Your task to perform on an android device: Go to eBay Image 0: 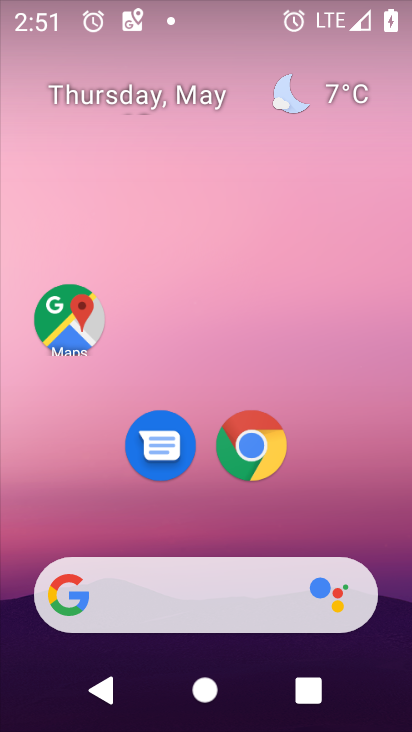
Step 0: click (320, 1)
Your task to perform on an android device: Go to eBay Image 1: 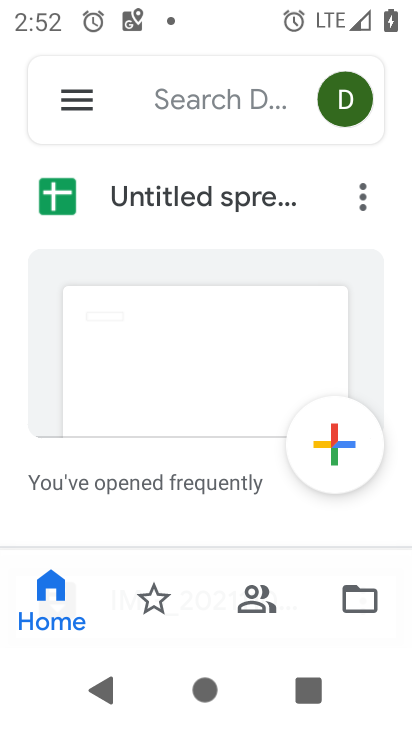
Step 1: press home button
Your task to perform on an android device: Go to eBay Image 2: 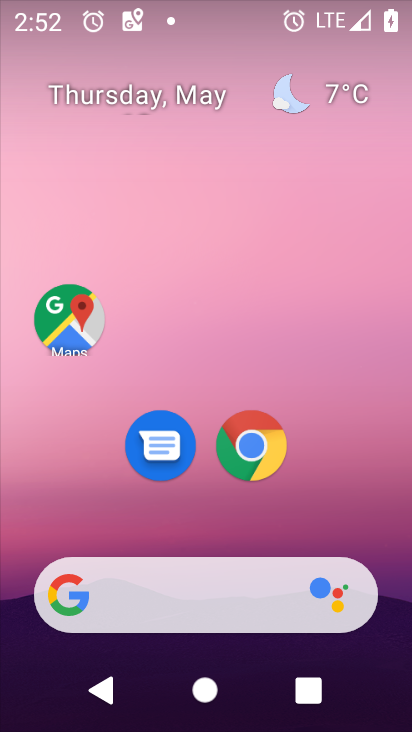
Step 2: click (253, 448)
Your task to perform on an android device: Go to eBay Image 3: 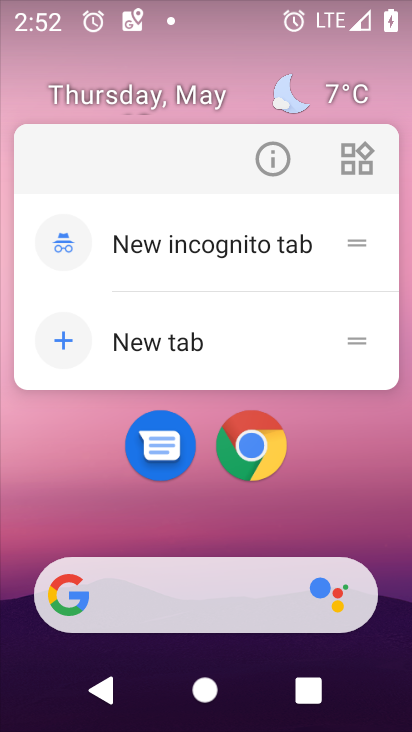
Step 3: click (253, 448)
Your task to perform on an android device: Go to eBay Image 4: 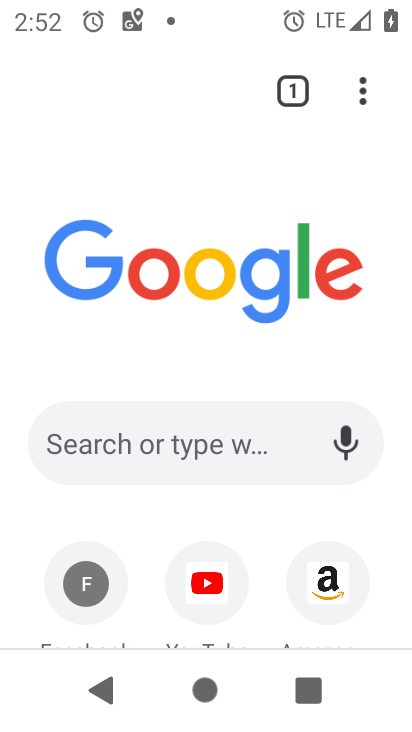
Step 4: drag from (389, 591) to (385, 320)
Your task to perform on an android device: Go to eBay Image 5: 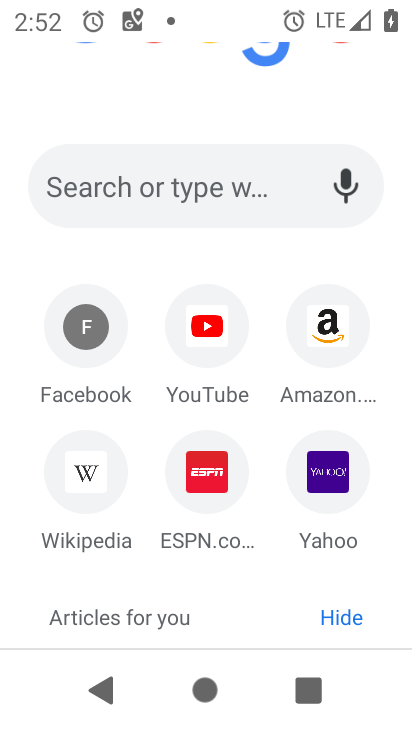
Step 5: click (73, 191)
Your task to perform on an android device: Go to eBay Image 6: 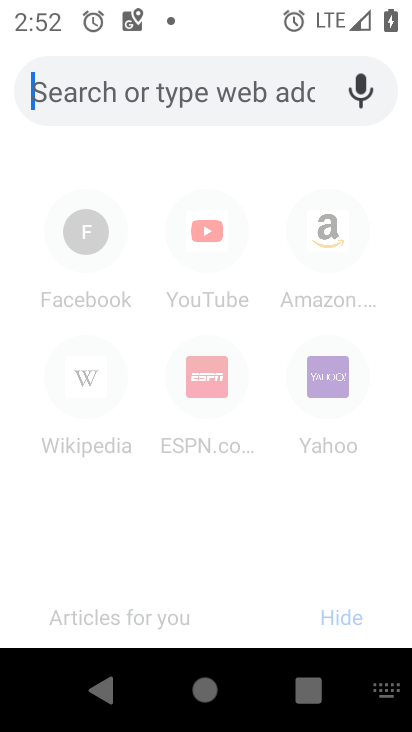
Step 6: type "ebay"
Your task to perform on an android device: Go to eBay Image 7: 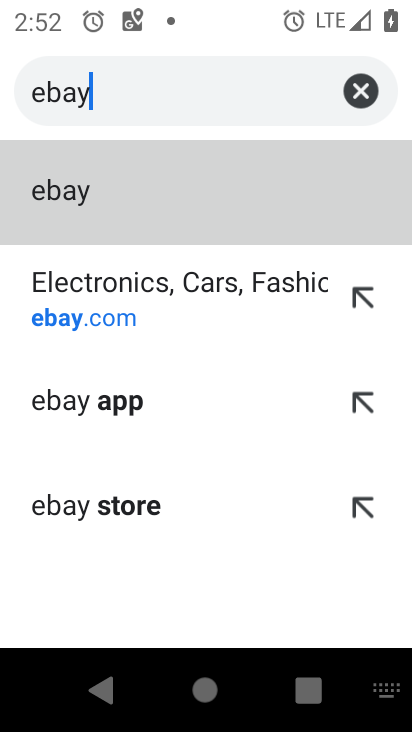
Step 7: click (58, 201)
Your task to perform on an android device: Go to eBay Image 8: 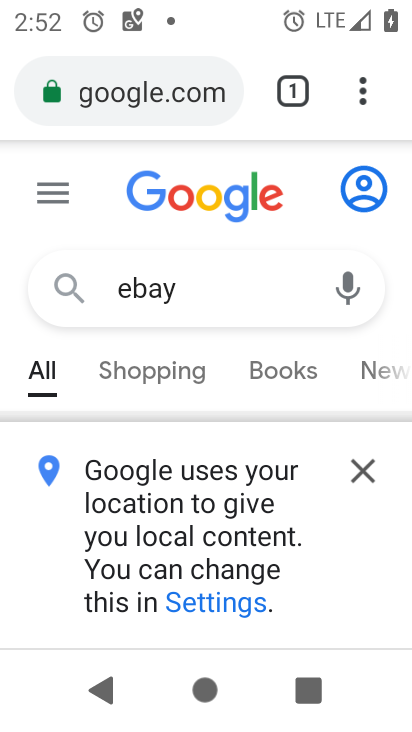
Step 8: click (360, 473)
Your task to perform on an android device: Go to eBay Image 9: 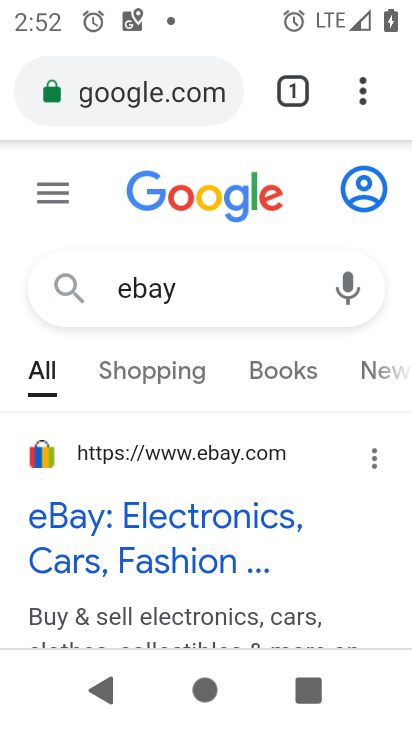
Step 9: click (78, 458)
Your task to perform on an android device: Go to eBay Image 10: 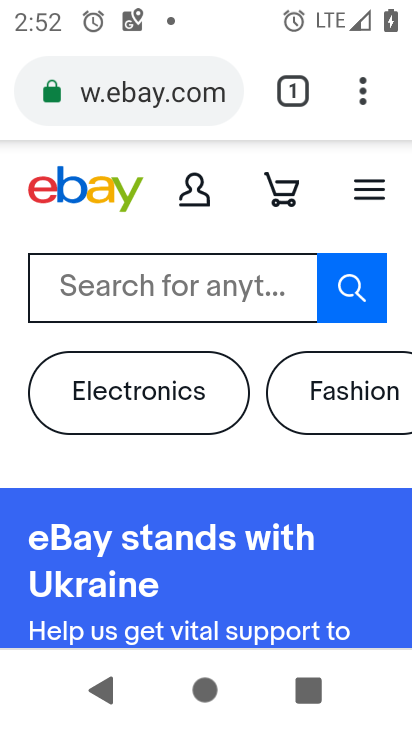
Step 10: task complete